Your task to perform on an android device: turn off improve location accuracy Image 0: 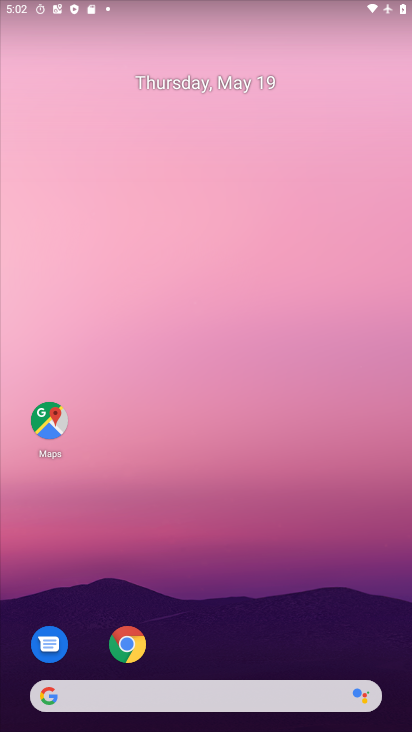
Step 0: drag from (224, 593) to (224, 221)
Your task to perform on an android device: turn off improve location accuracy Image 1: 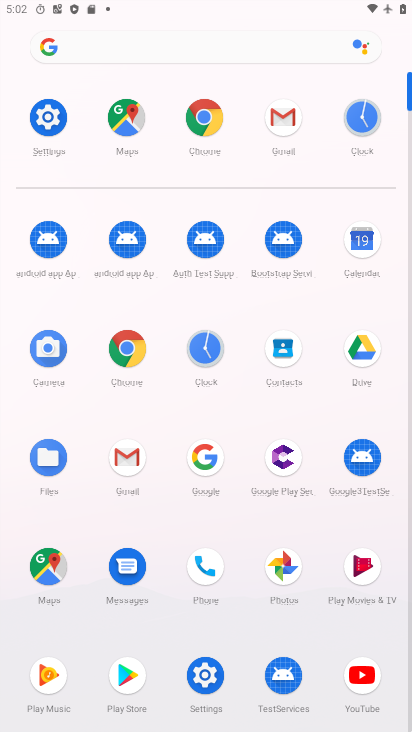
Step 1: click (52, 119)
Your task to perform on an android device: turn off improve location accuracy Image 2: 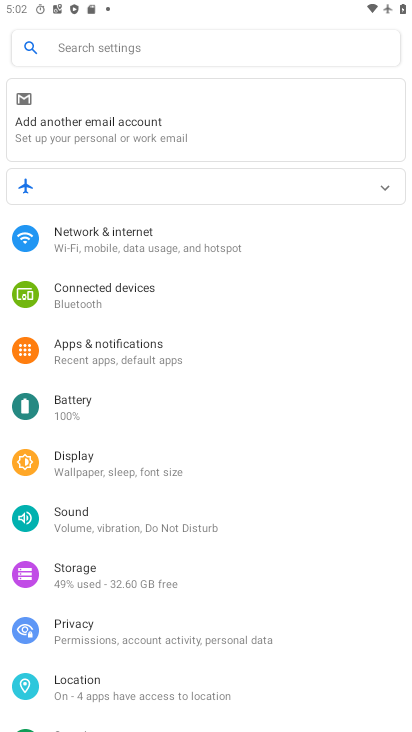
Step 2: click (103, 687)
Your task to perform on an android device: turn off improve location accuracy Image 3: 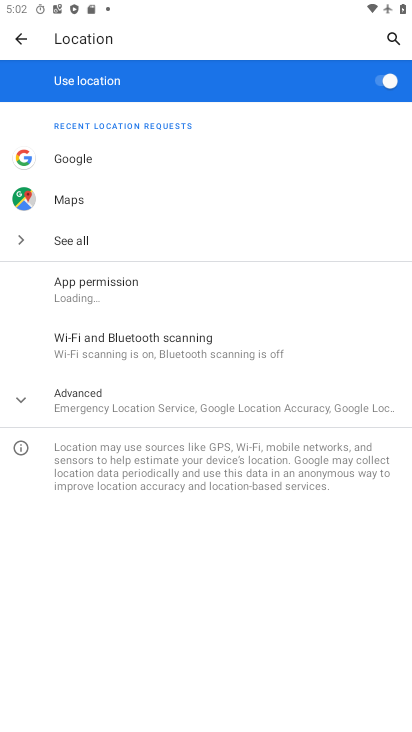
Step 3: click (109, 406)
Your task to perform on an android device: turn off improve location accuracy Image 4: 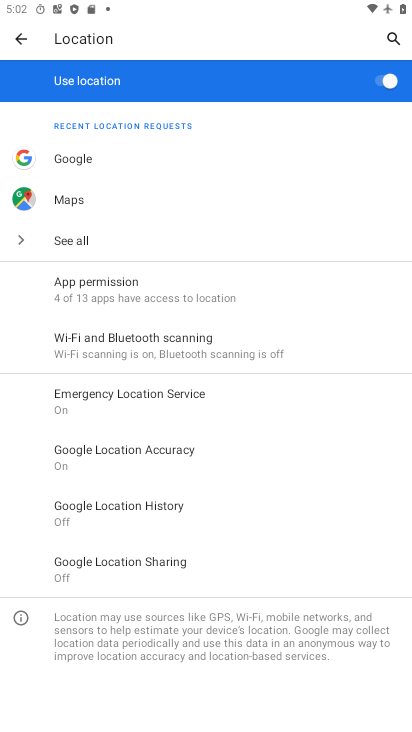
Step 4: click (135, 451)
Your task to perform on an android device: turn off improve location accuracy Image 5: 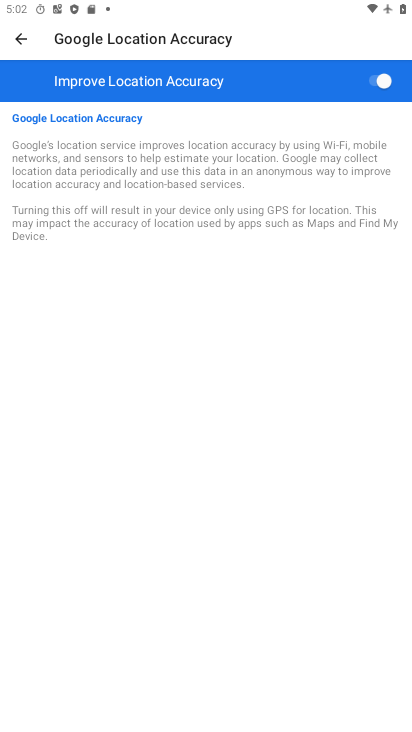
Step 5: click (379, 78)
Your task to perform on an android device: turn off improve location accuracy Image 6: 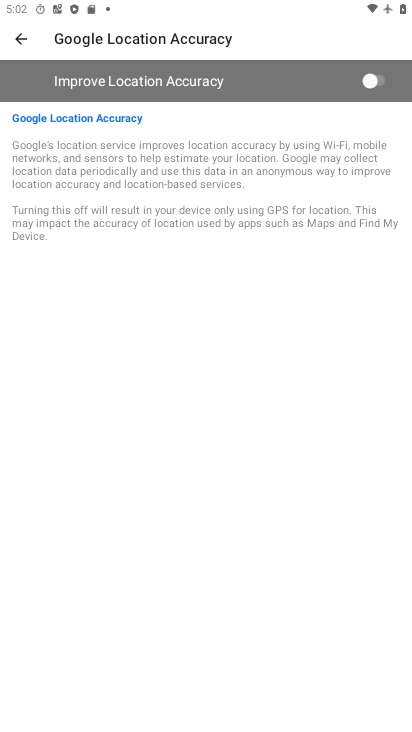
Step 6: task complete